Your task to perform on an android device: Open a new tab in Chrome Image 0: 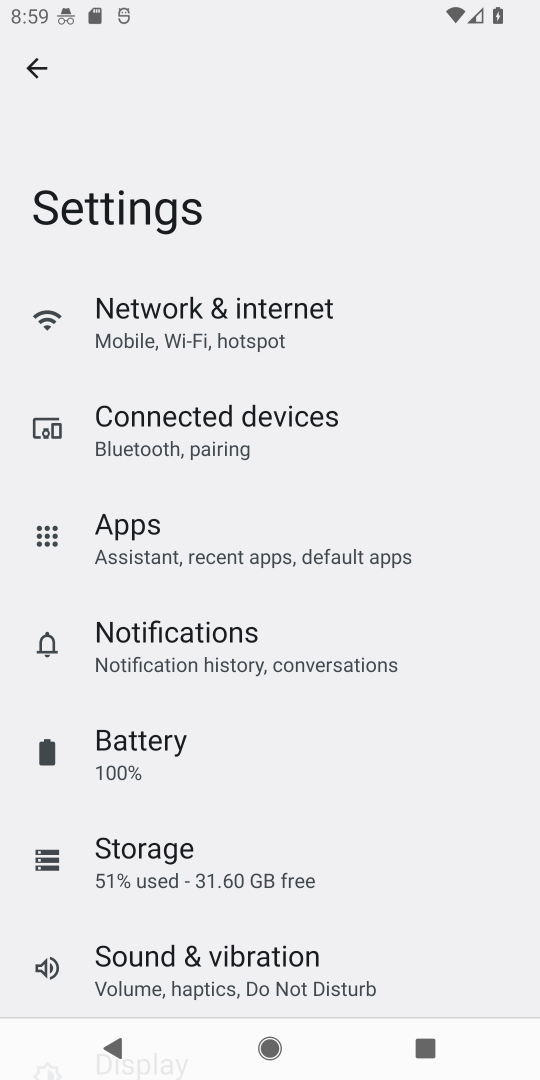
Step 0: press home button
Your task to perform on an android device: Open a new tab in Chrome Image 1: 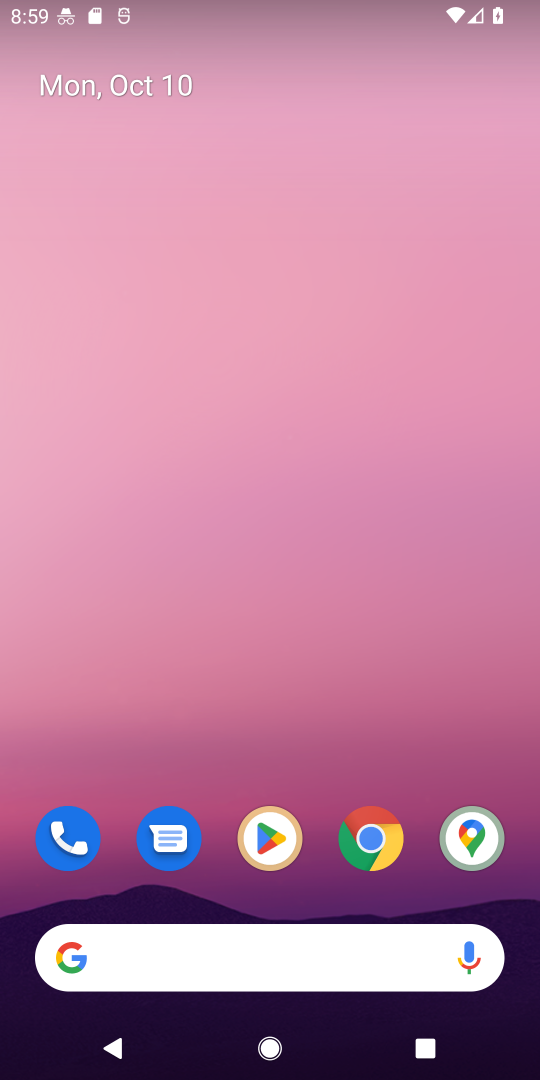
Step 1: click (364, 843)
Your task to perform on an android device: Open a new tab in Chrome Image 2: 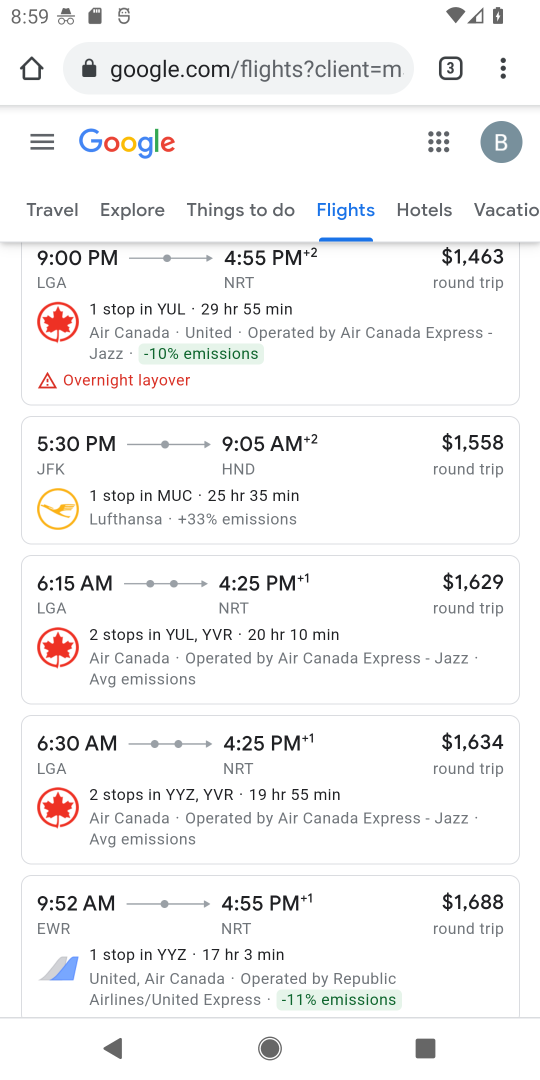
Step 2: click (497, 80)
Your task to perform on an android device: Open a new tab in Chrome Image 3: 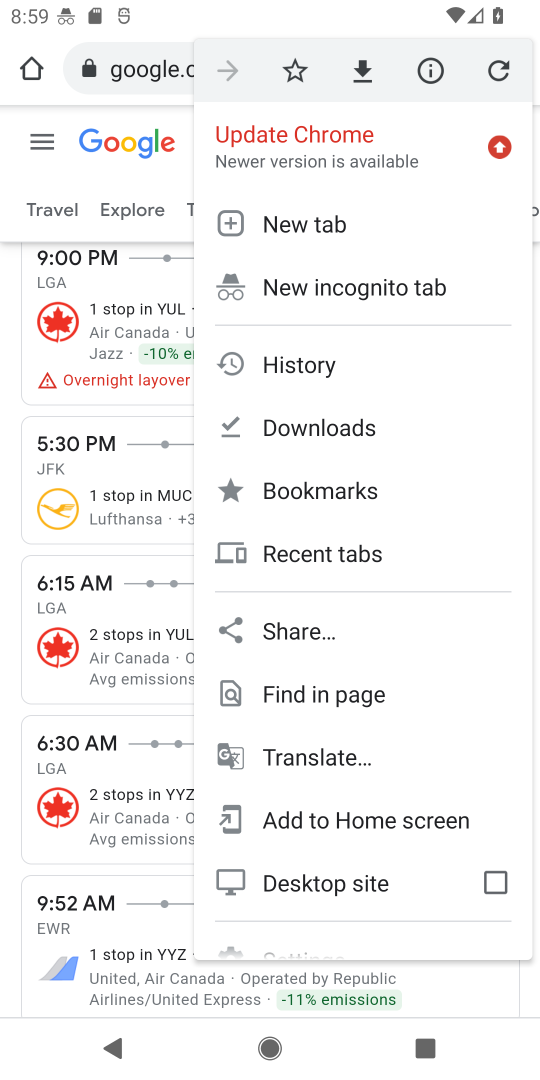
Step 3: click (280, 224)
Your task to perform on an android device: Open a new tab in Chrome Image 4: 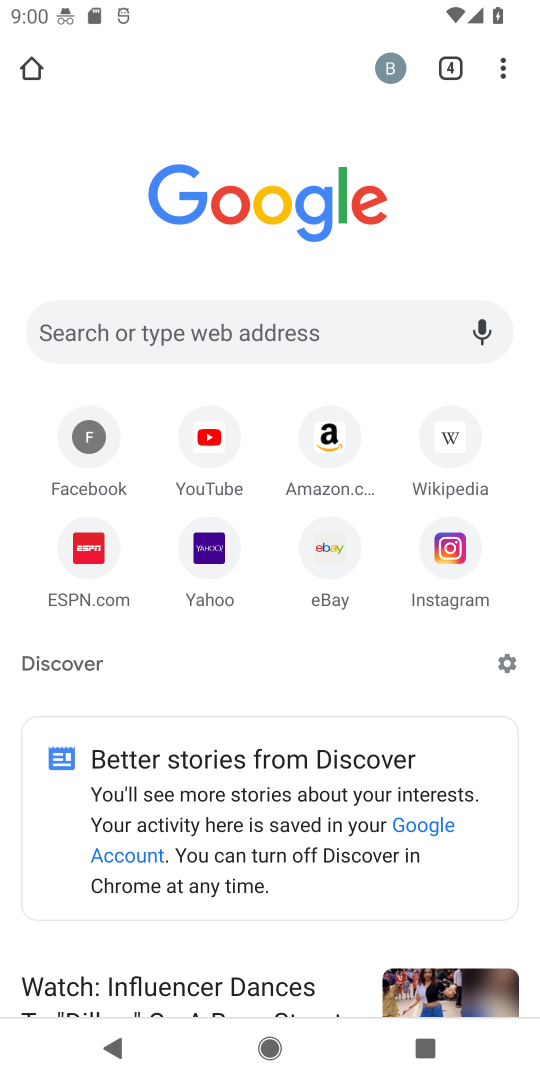
Step 4: task complete